Your task to perform on an android device: Go to notification settings Image 0: 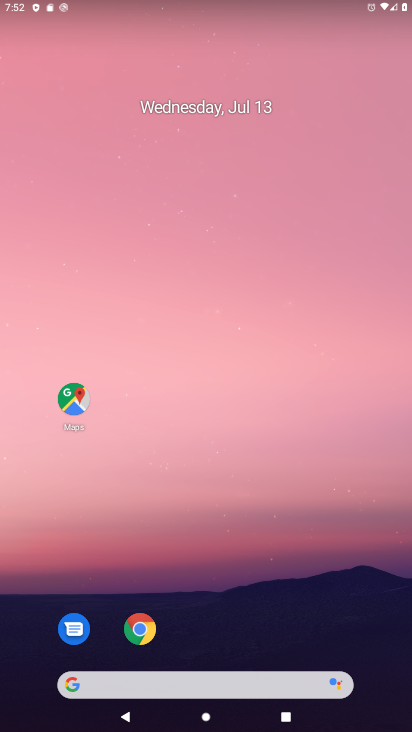
Step 0: drag from (274, 640) to (268, 13)
Your task to perform on an android device: Go to notification settings Image 1: 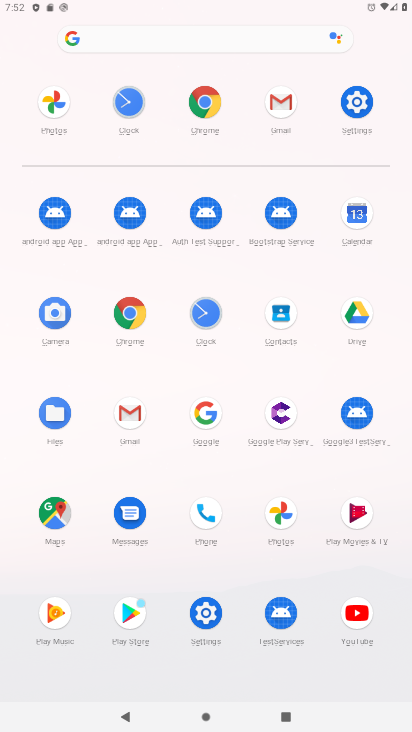
Step 1: click (367, 99)
Your task to perform on an android device: Go to notification settings Image 2: 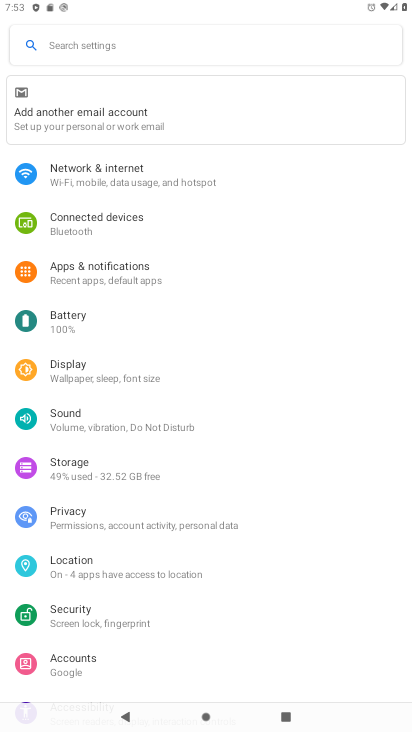
Step 2: click (113, 273)
Your task to perform on an android device: Go to notification settings Image 3: 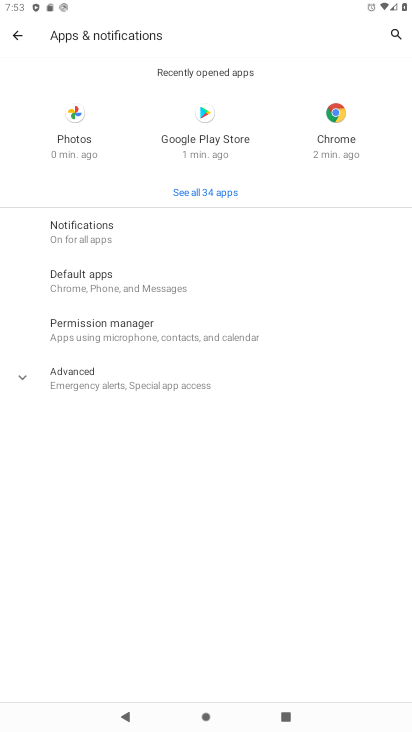
Step 3: task complete